Your task to perform on an android device: open sync settings in chrome Image 0: 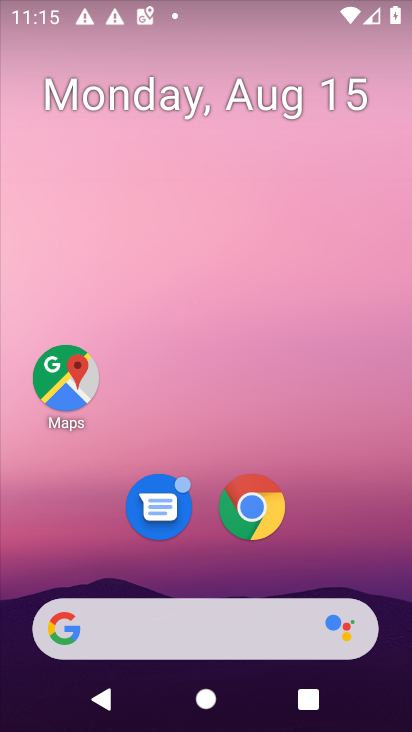
Step 0: click (253, 504)
Your task to perform on an android device: open sync settings in chrome Image 1: 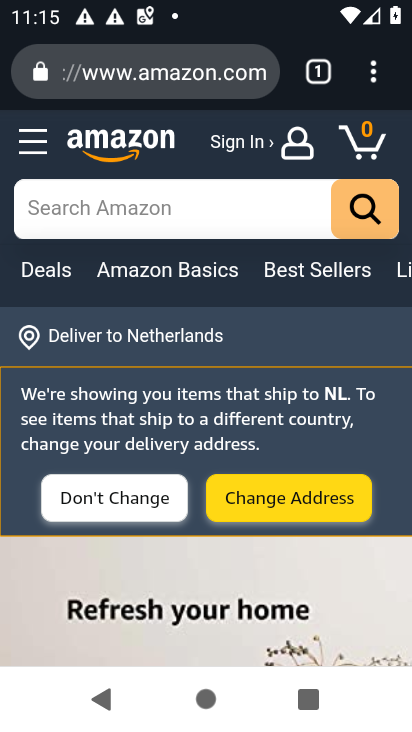
Step 1: click (381, 72)
Your task to perform on an android device: open sync settings in chrome Image 2: 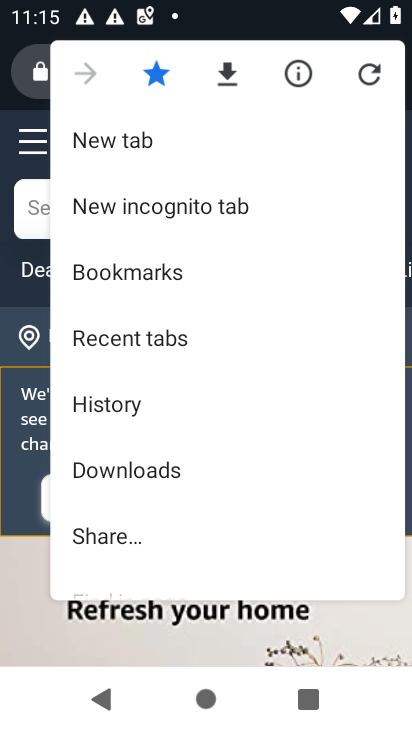
Step 2: drag from (192, 501) to (164, 215)
Your task to perform on an android device: open sync settings in chrome Image 3: 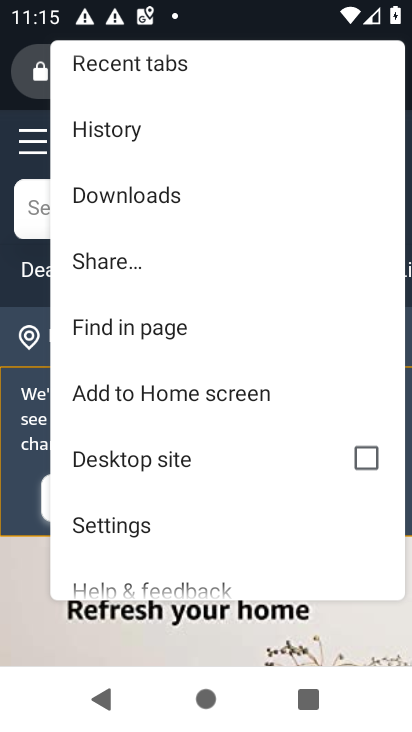
Step 3: click (116, 521)
Your task to perform on an android device: open sync settings in chrome Image 4: 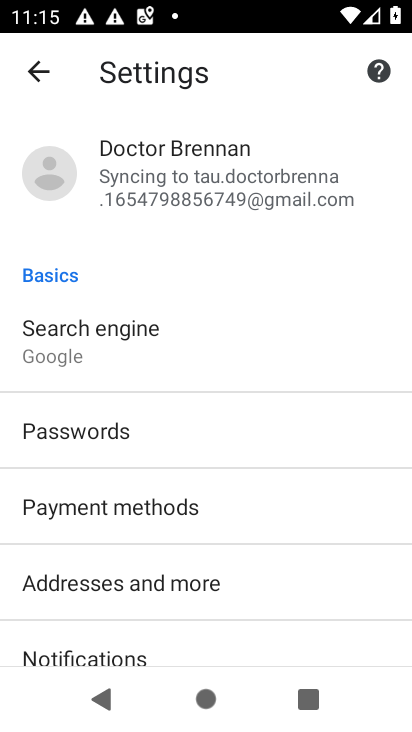
Step 4: click (153, 138)
Your task to perform on an android device: open sync settings in chrome Image 5: 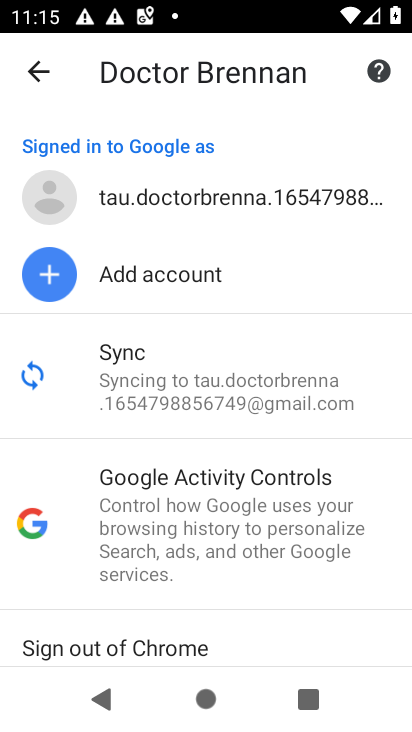
Step 5: click (129, 364)
Your task to perform on an android device: open sync settings in chrome Image 6: 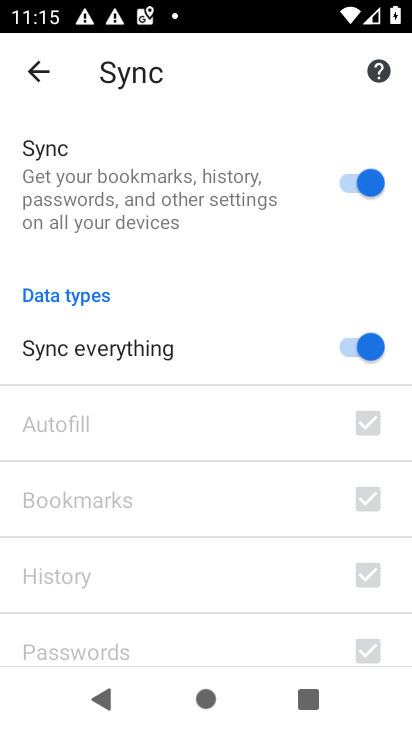
Step 6: task complete